Your task to perform on an android device: turn off picture-in-picture Image 0: 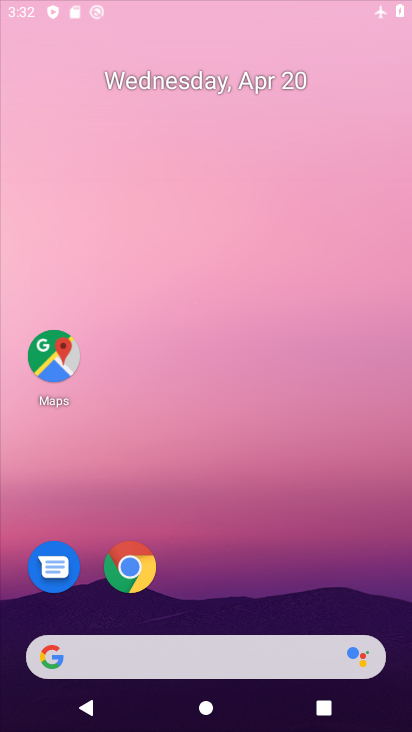
Step 0: drag from (379, 545) to (377, 184)
Your task to perform on an android device: turn off picture-in-picture Image 1: 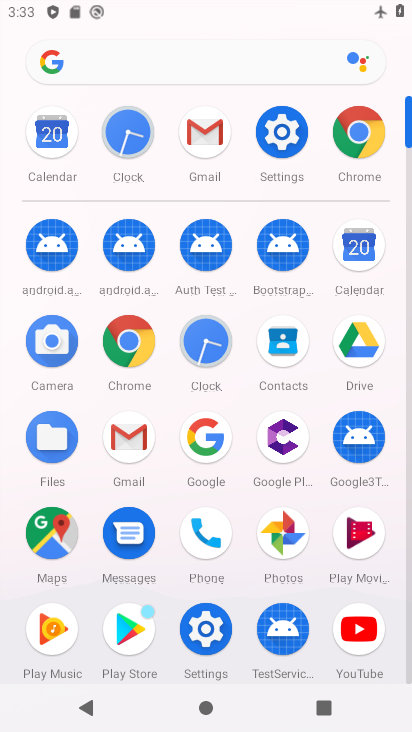
Step 1: click (370, 157)
Your task to perform on an android device: turn off picture-in-picture Image 2: 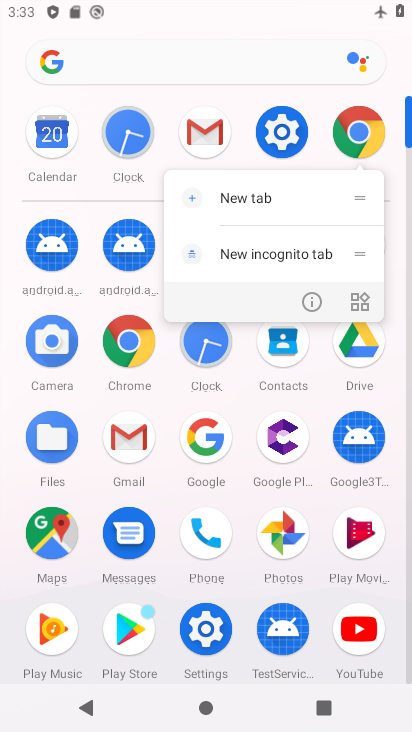
Step 2: click (308, 313)
Your task to perform on an android device: turn off picture-in-picture Image 3: 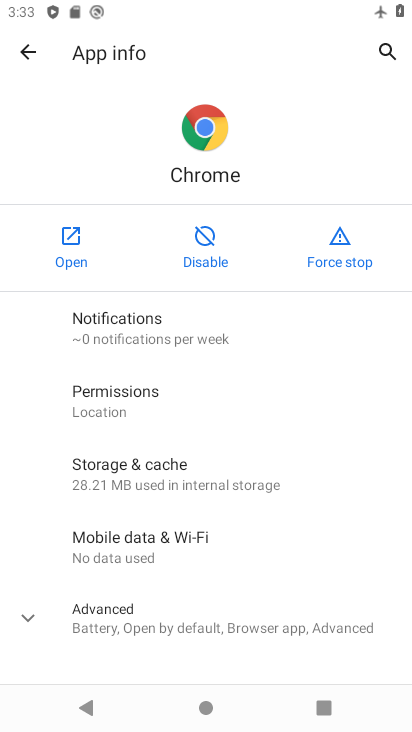
Step 3: drag from (285, 611) to (281, 90)
Your task to perform on an android device: turn off picture-in-picture Image 4: 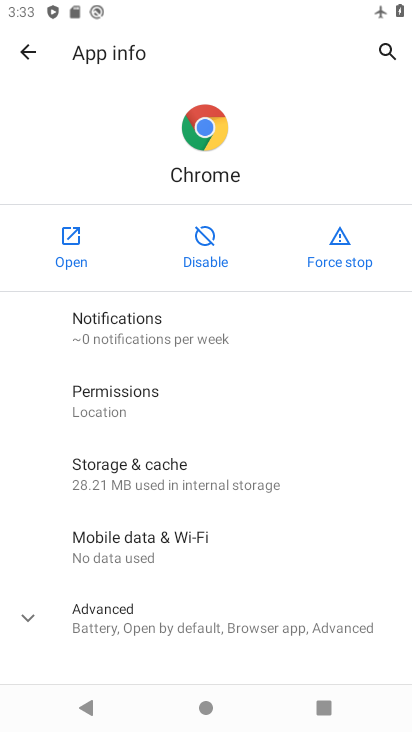
Step 4: click (134, 620)
Your task to perform on an android device: turn off picture-in-picture Image 5: 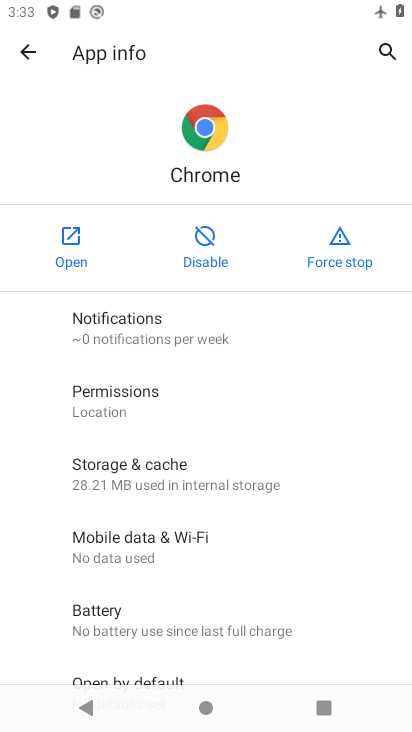
Step 5: drag from (190, 652) to (288, 196)
Your task to perform on an android device: turn off picture-in-picture Image 6: 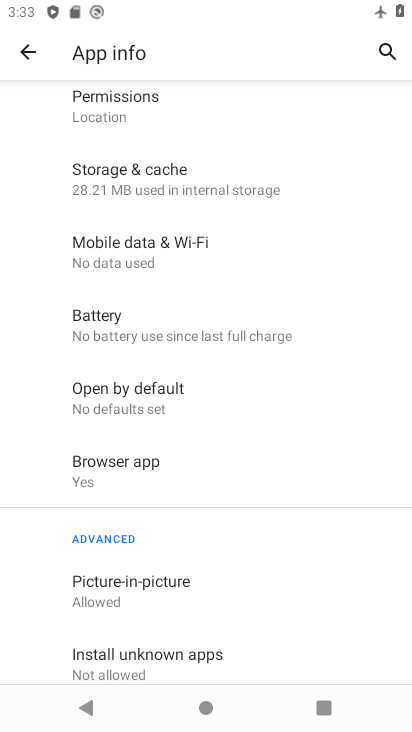
Step 6: click (234, 576)
Your task to perform on an android device: turn off picture-in-picture Image 7: 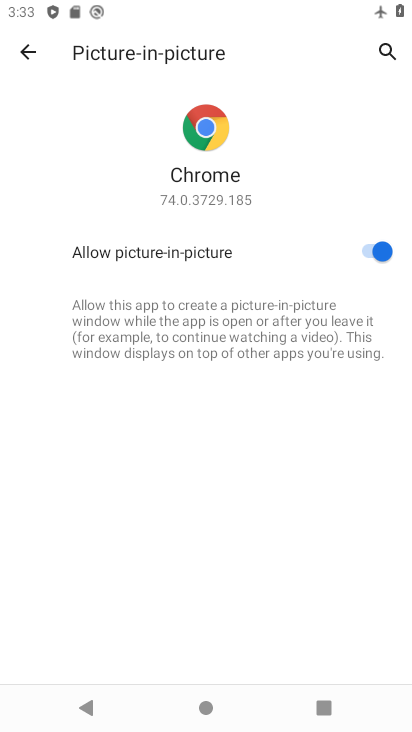
Step 7: click (375, 249)
Your task to perform on an android device: turn off picture-in-picture Image 8: 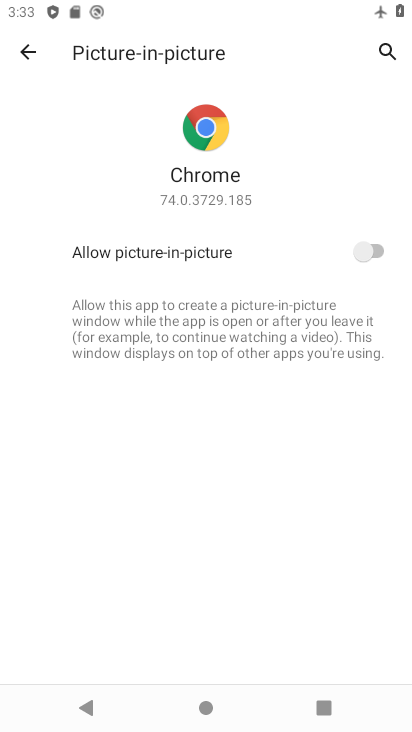
Step 8: task complete